Your task to perform on an android device: turn off airplane mode Image 0: 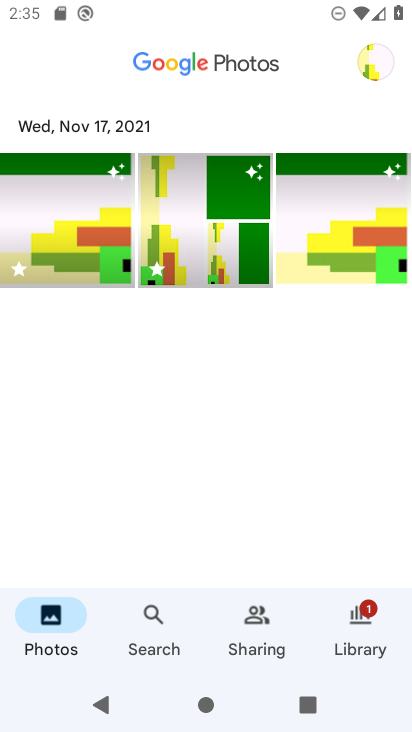
Step 0: press home button
Your task to perform on an android device: turn off airplane mode Image 1: 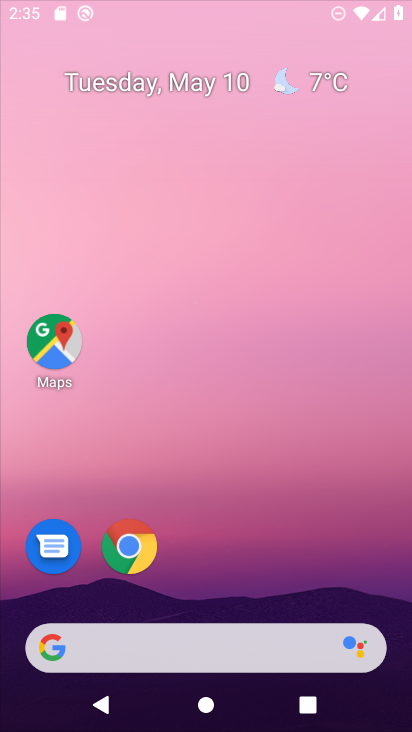
Step 1: drag from (358, 310) to (374, 130)
Your task to perform on an android device: turn off airplane mode Image 2: 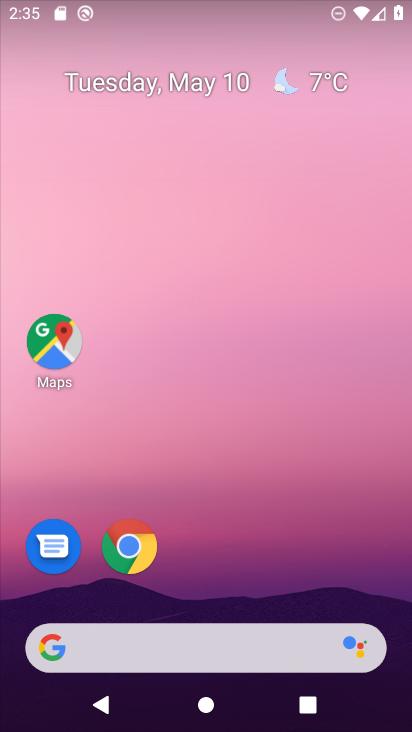
Step 2: drag from (327, 531) to (342, 77)
Your task to perform on an android device: turn off airplane mode Image 3: 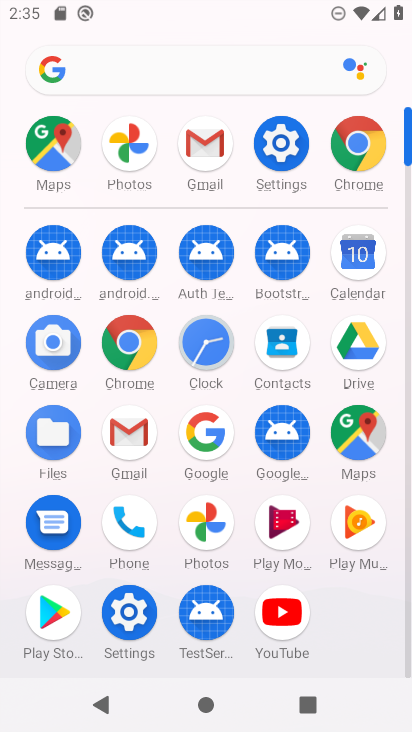
Step 3: click (280, 145)
Your task to perform on an android device: turn off airplane mode Image 4: 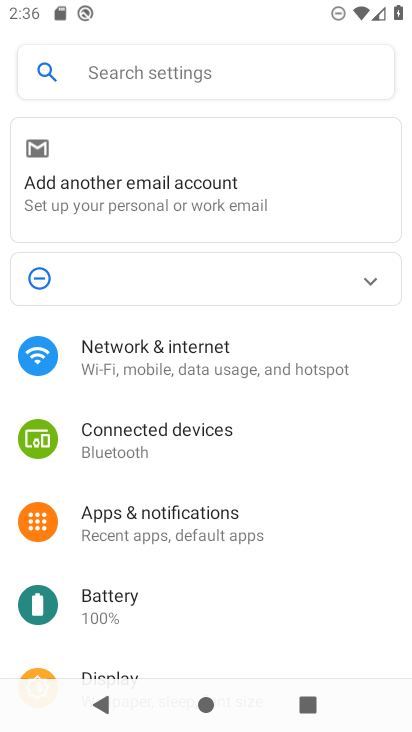
Step 4: click (210, 351)
Your task to perform on an android device: turn off airplane mode Image 5: 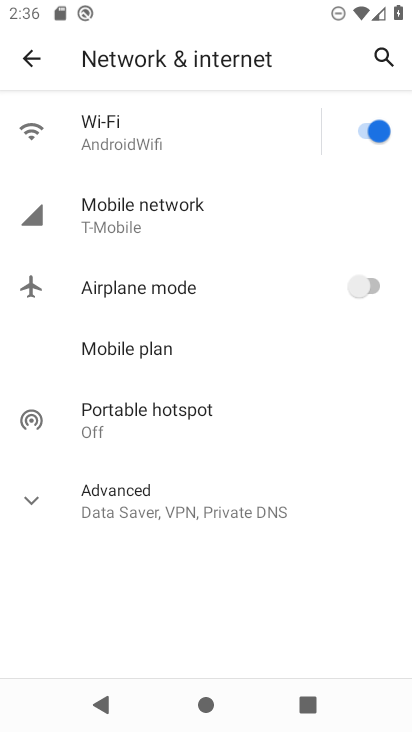
Step 5: task complete